Your task to perform on an android device: change notification settings in the gmail app Image 0: 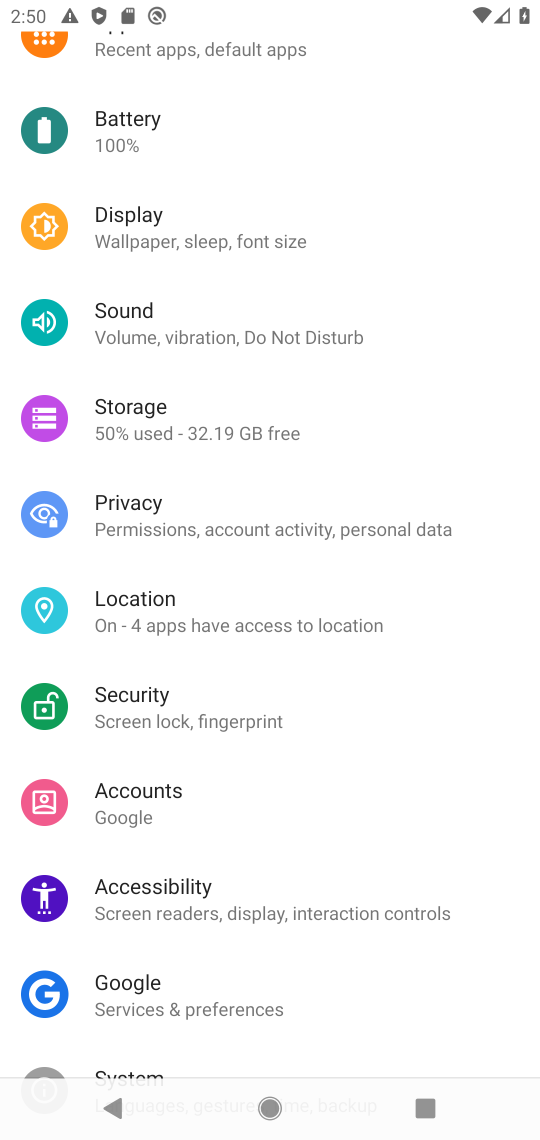
Step 0: press home button
Your task to perform on an android device: change notification settings in the gmail app Image 1: 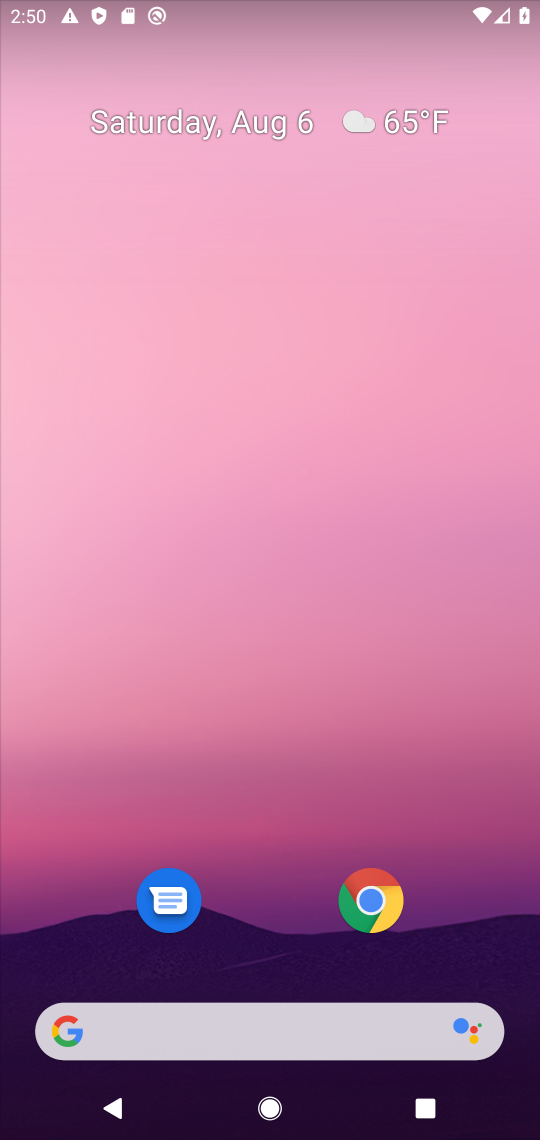
Step 1: drag from (286, 887) to (345, 27)
Your task to perform on an android device: change notification settings in the gmail app Image 2: 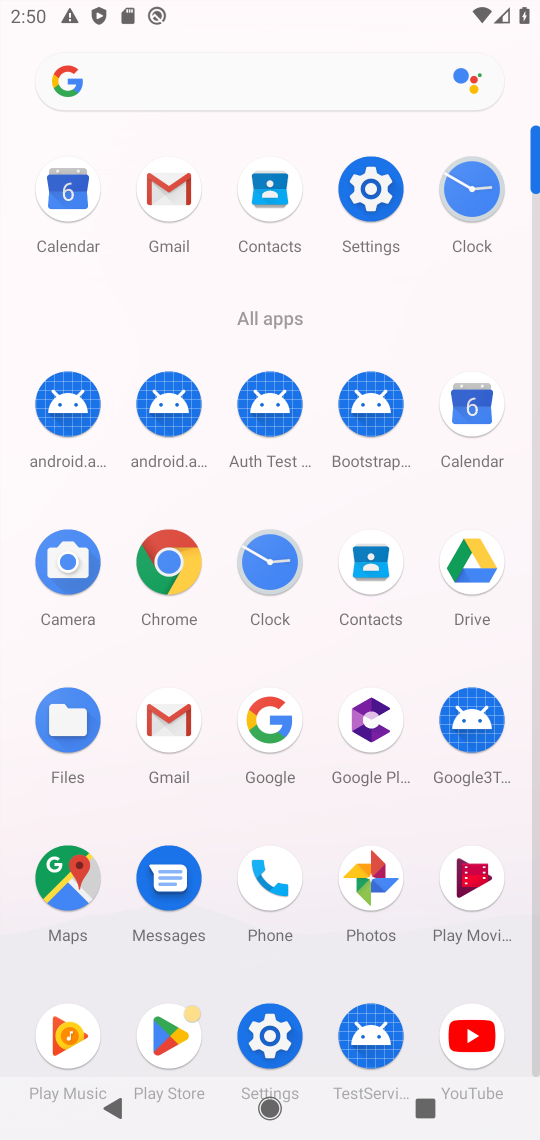
Step 2: click (159, 211)
Your task to perform on an android device: change notification settings in the gmail app Image 3: 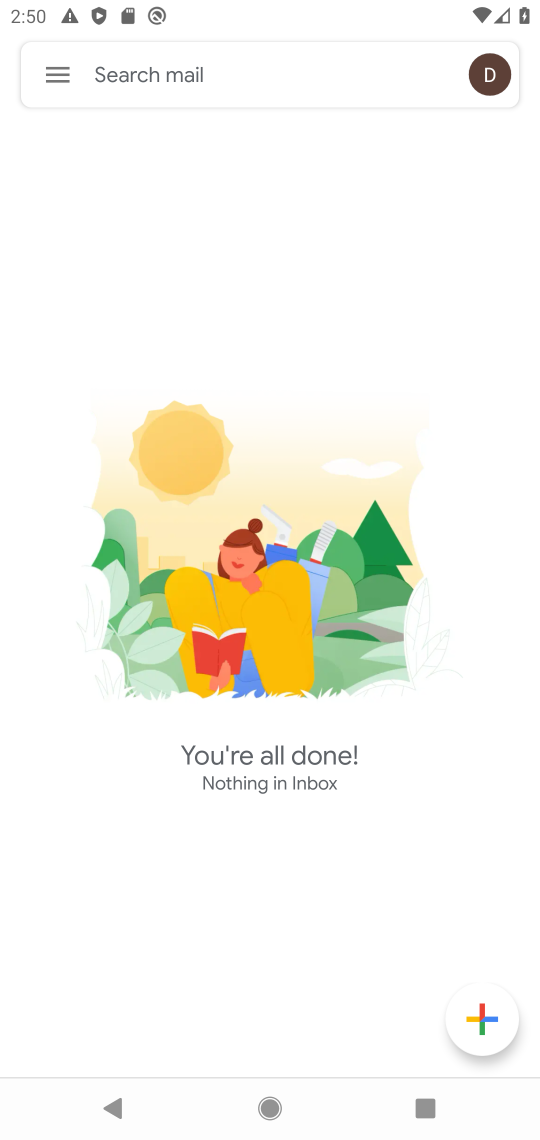
Step 3: click (46, 77)
Your task to perform on an android device: change notification settings in the gmail app Image 4: 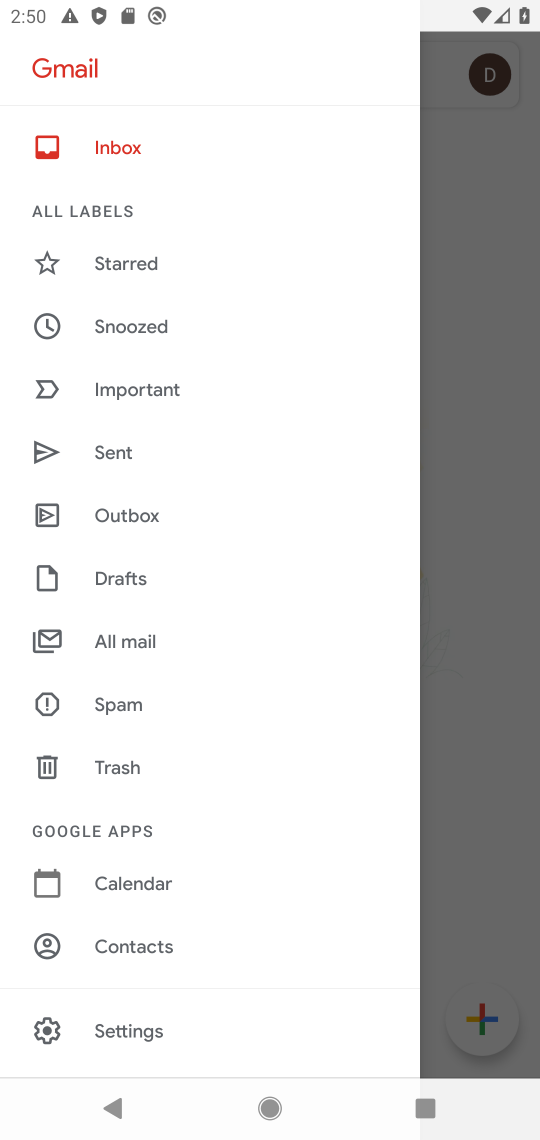
Step 4: click (124, 1025)
Your task to perform on an android device: change notification settings in the gmail app Image 5: 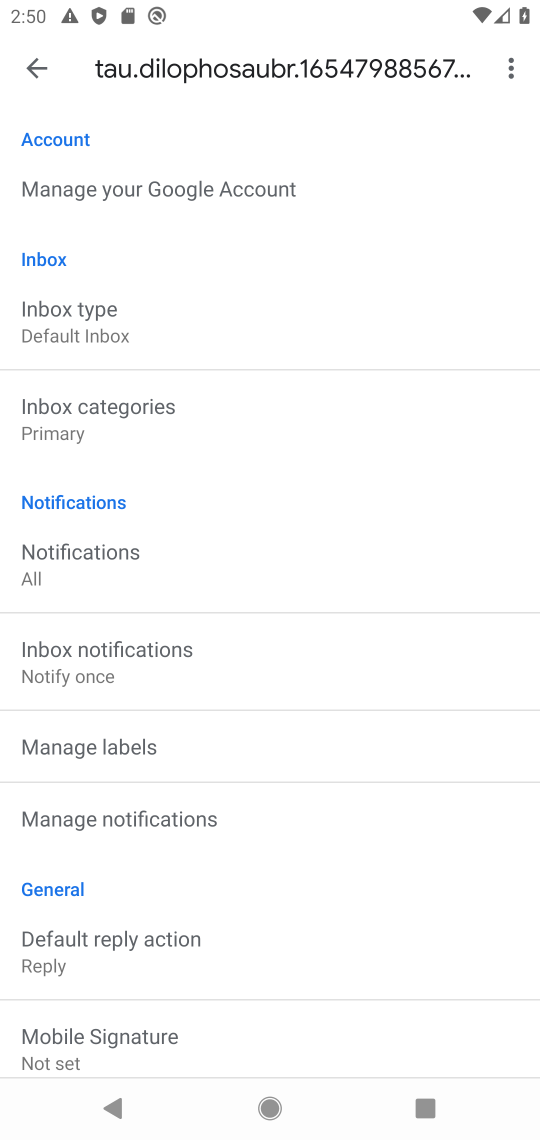
Step 5: click (112, 817)
Your task to perform on an android device: change notification settings in the gmail app Image 6: 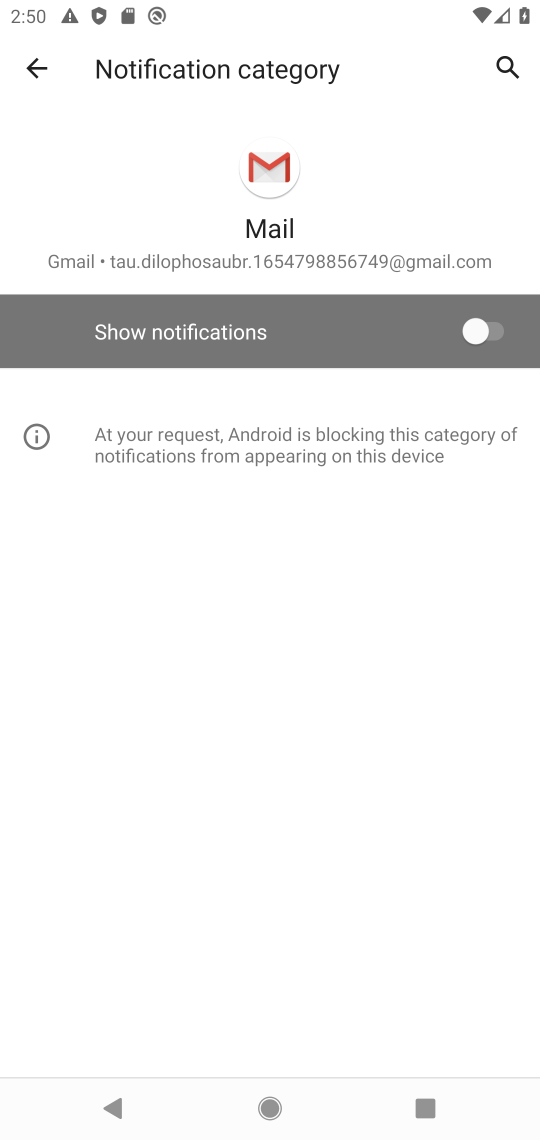
Step 6: click (496, 313)
Your task to perform on an android device: change notification settings in the gmail app Image 7: 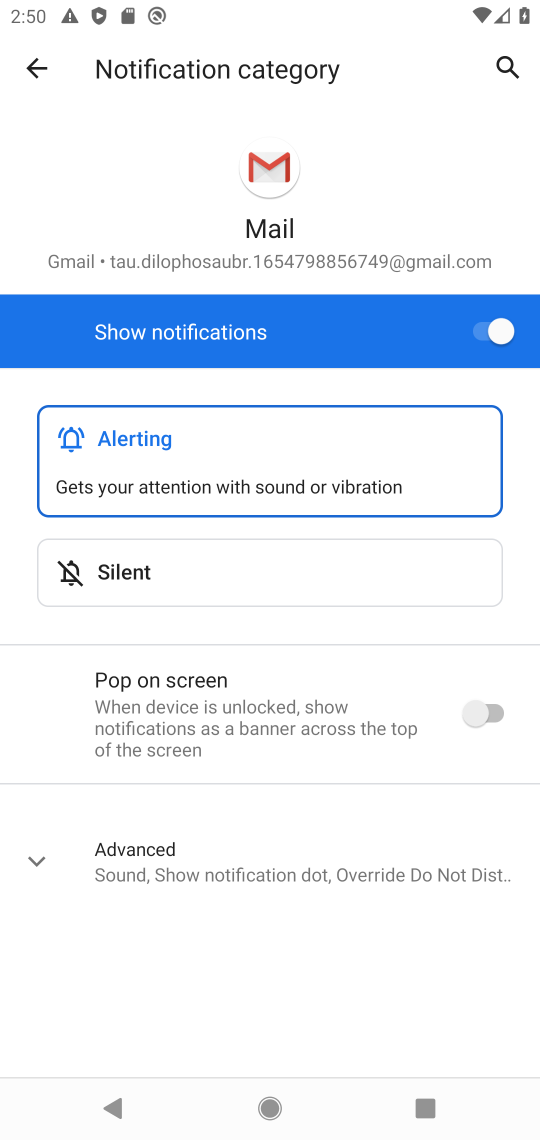
Step 7: task complete